Your task to perform on an android device: Open sound settings Image 0: 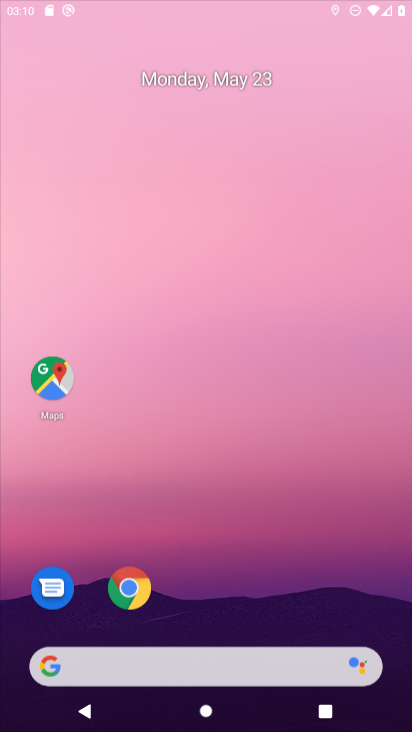
Step 0: drag from (225, 726) to (217, 56)
Your task to perform on an android device: Open sound settings Image 1: 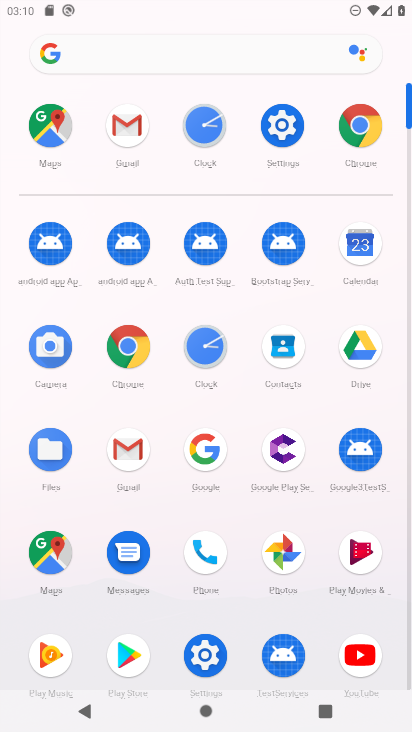
Step 1: click (279, 112)
Your task to perform on an android device: Open sound settings Image 2: 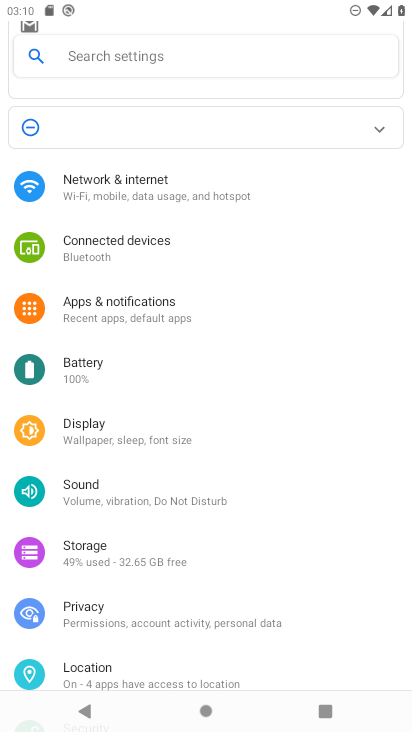
Step 2: click (82, 490)
Your task to perform on an android device: Open sound settings Image 3: 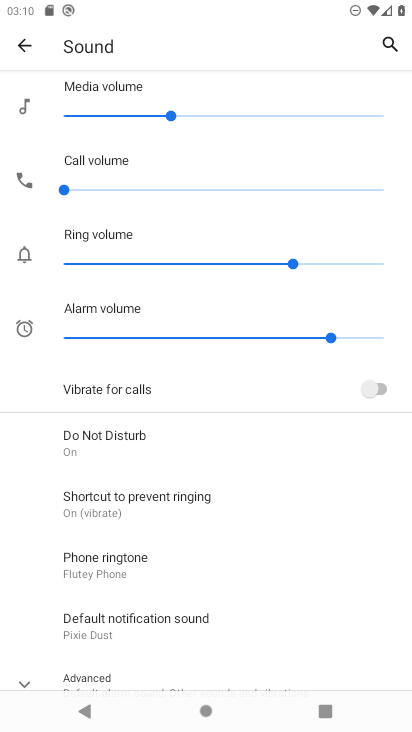
Step 3: task complete